Your task to perform on an android device: open wifi settings Image 0: 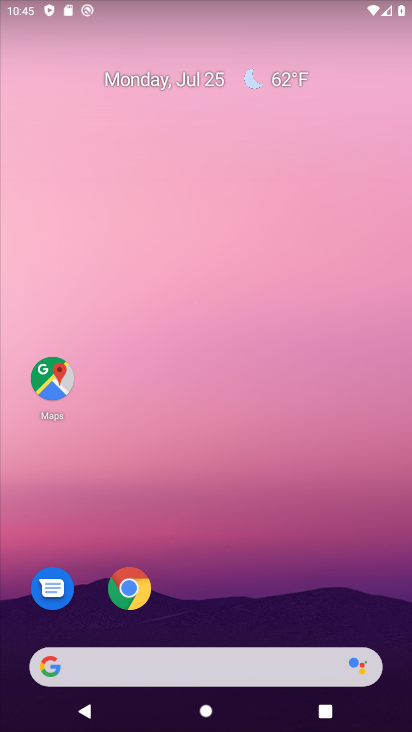
Step 0: drag from (83, 407) to (211, 109)
Your task to perform on an android device: open wifi settings Image 1: 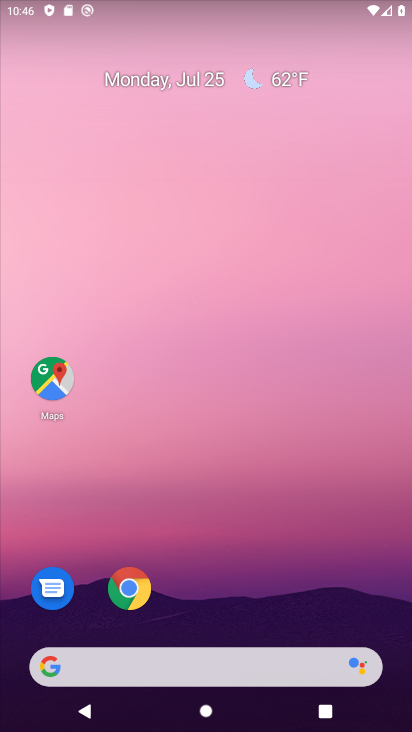
Step 1: drag from (53, 629) to (263, 11)
Your task to perform on an android device: open wifi settings Image 2: 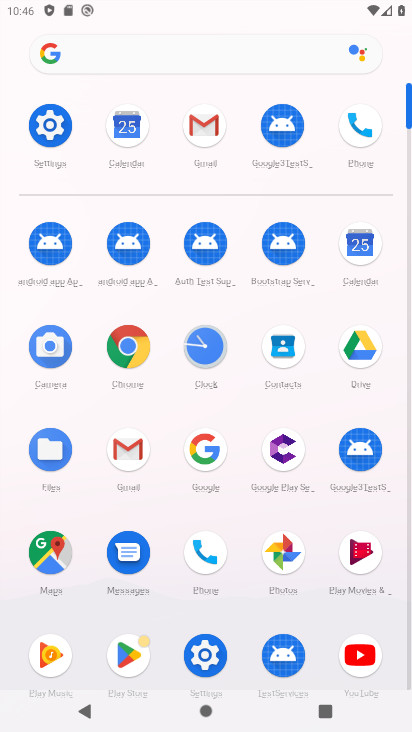
Step 2: click (48, 125)
Your task to perform on an android device: open wifi settings Image 3: 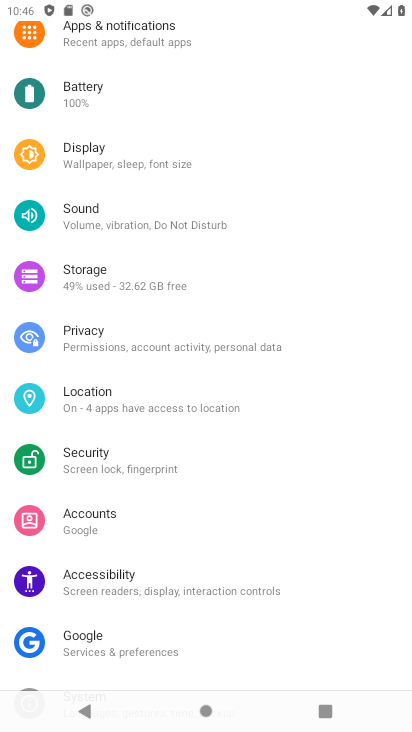
Step 3: drag from (151, 118) to (91, 541)
Your task to perform on an android device: open wifi settings Image 4: 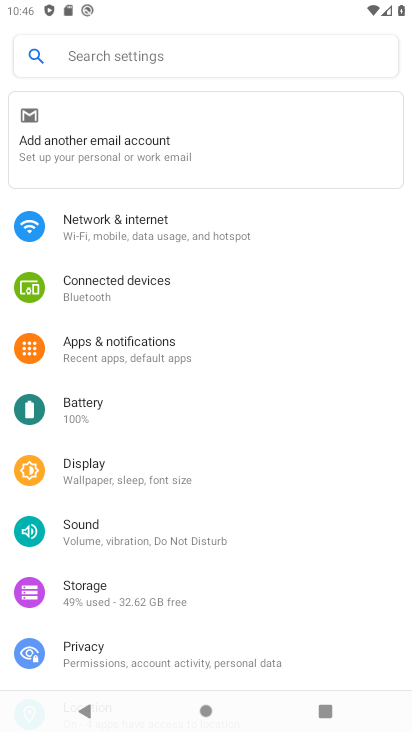
Step 4: click (146, 230)
Your task to perform on an android device: open wifi settings Image 5: 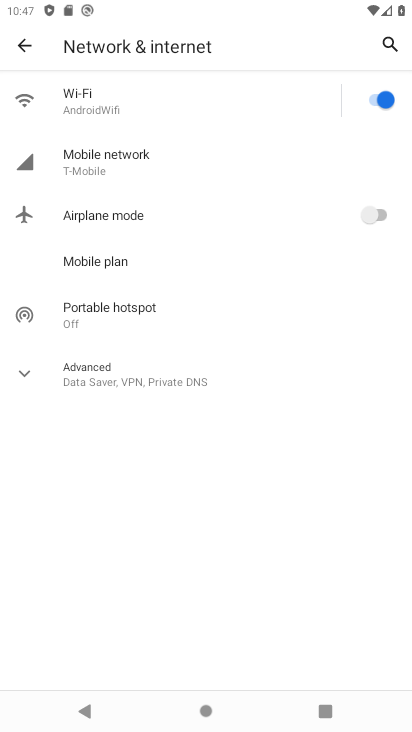
Step 5: task complete